Your task to perform on an android device: toggle location history Image 0: 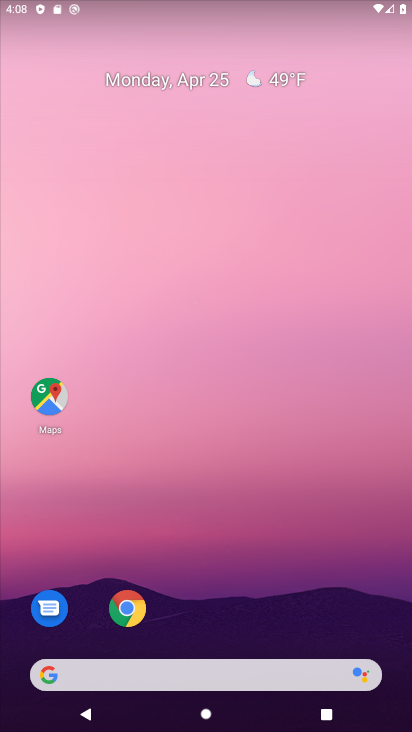
Step 0: drag from (316, 561) to (325, 215)
Your task to perform on an android device: toggle location history Image 1: 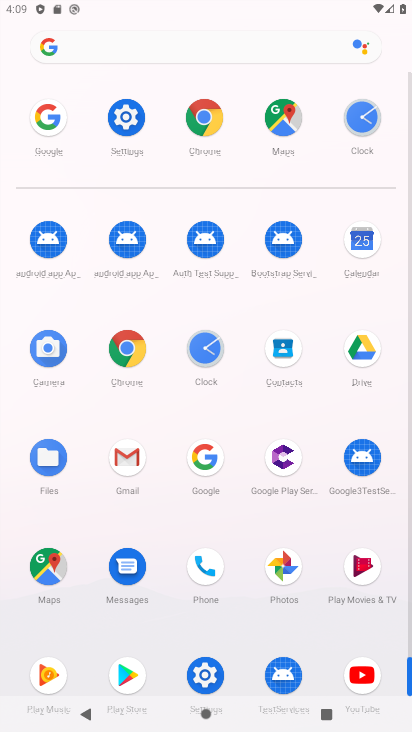
Step 1: click (133, 133)
Your task to perform on an android device: toggle location history Image 2: 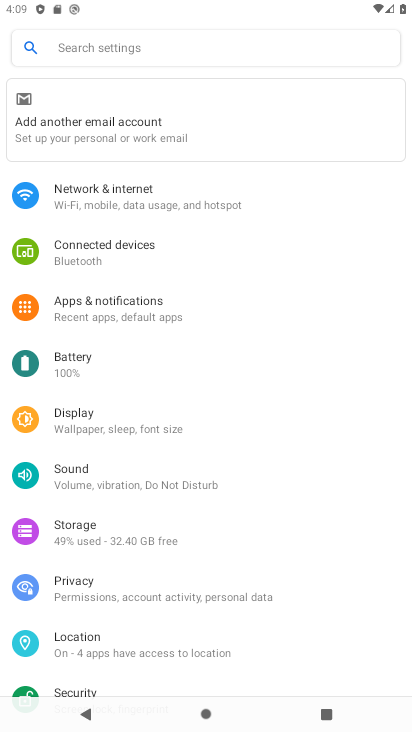
Step 2: click (145, 628)
Your task to perform on an android device: toggle location history Image 3: 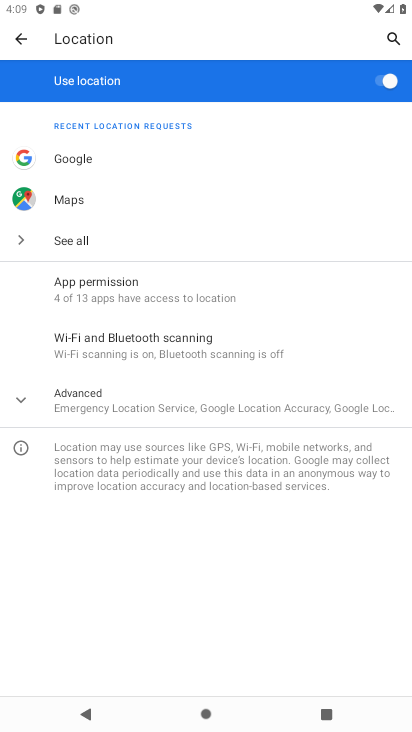
Step 3: click (142, 397)
Your task to perform on an android device: toggle location history Image 4: 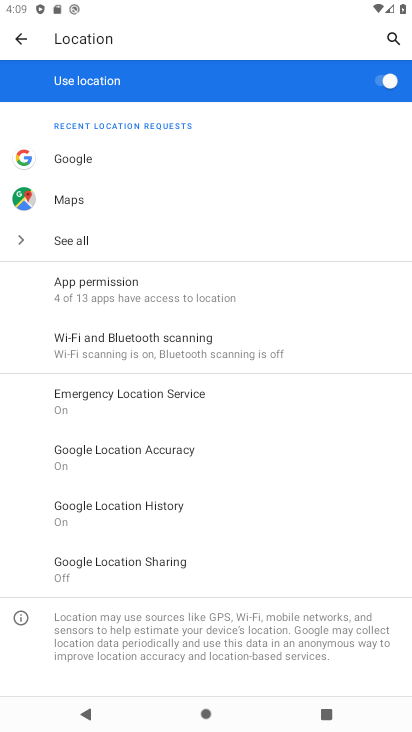
Step 4: click (159, 510)
Your task to perform on an android device: toggle location history Image 5: 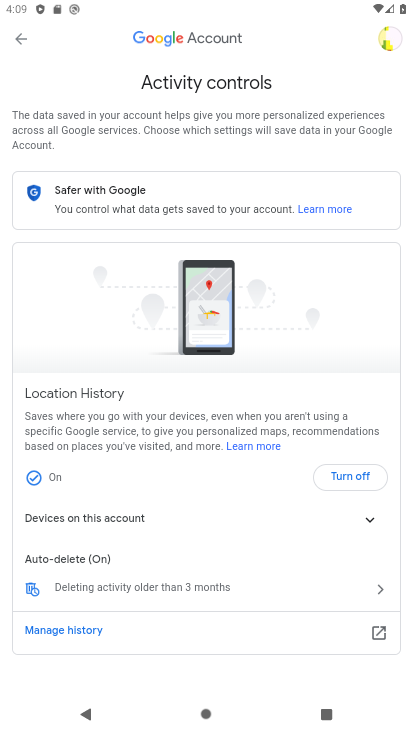
Step 5: click (342, 482)
Your task to perform on an android device: toggle location history Image 6: 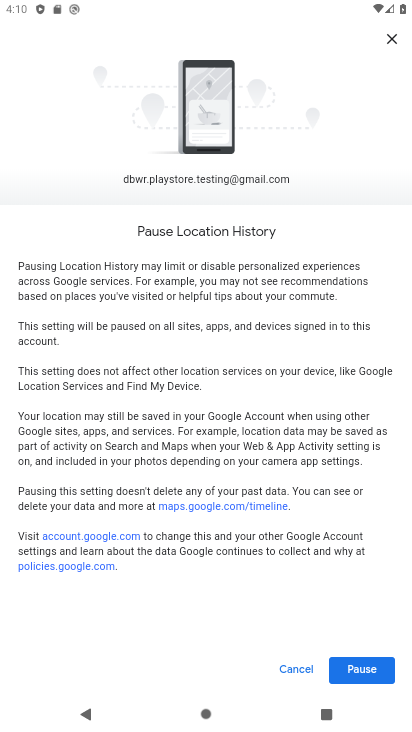
Step 6: click (378, 681)
Your task to perform on an android device: toggle location history Image 7: 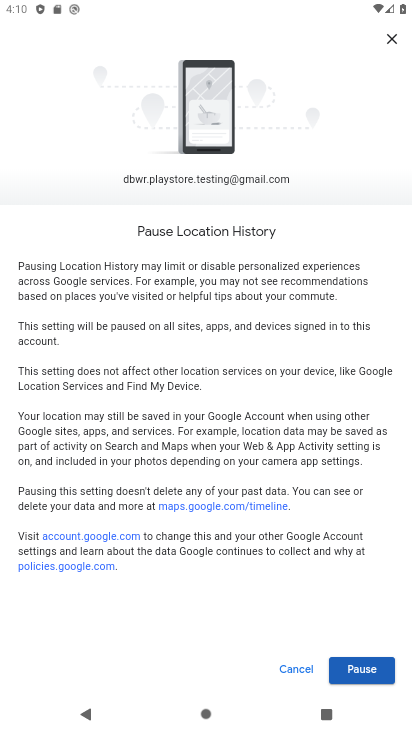
Step 7: click (381, 669)
Your task to perform on an android device: toggle location history Image 8: 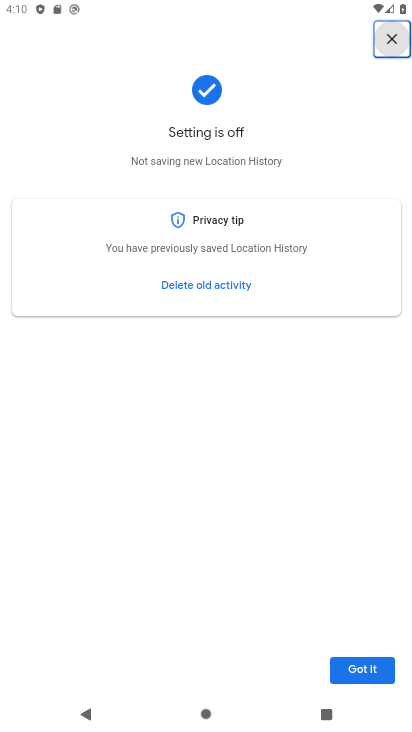
Step 8: click (371, 679)
Your task to perform on an android device: toggle location history Image 9: 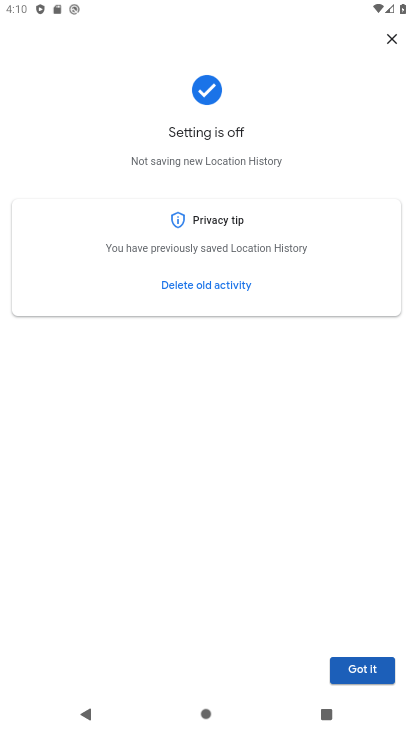
Step 9: task complete